Your task to perform on an android device: read, delete, or share a saved page in the chrome app Image 0: 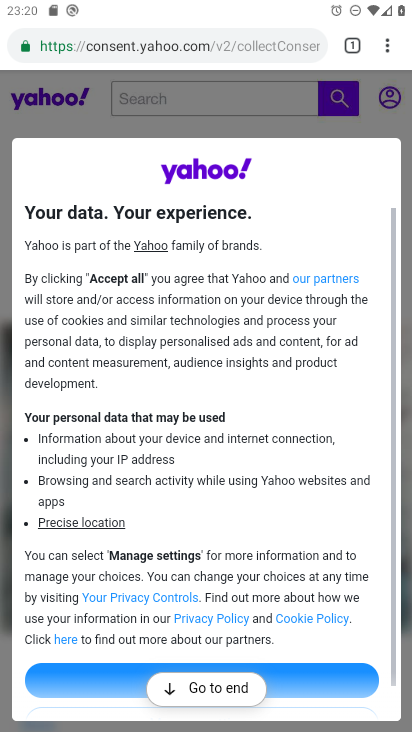
Step 0: drag from (380, 42) to (207, 340)
Your task to perform on an android device: read, delete, or share a saved page in the chrome app Image 1: 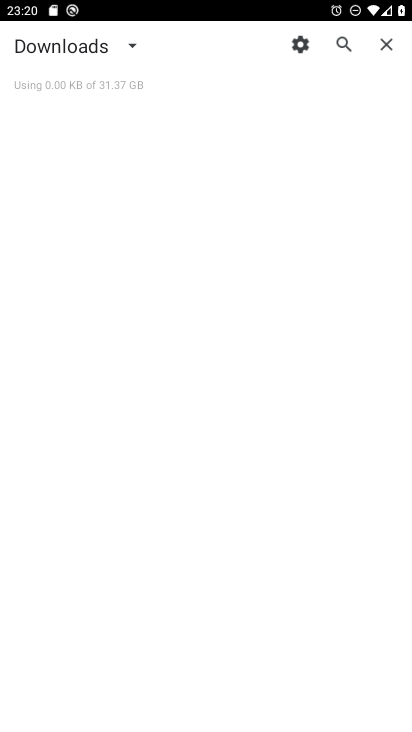
Step 1: task complete